Your task to perform on an android device: What's on my calendar tomorrow? Image 0: 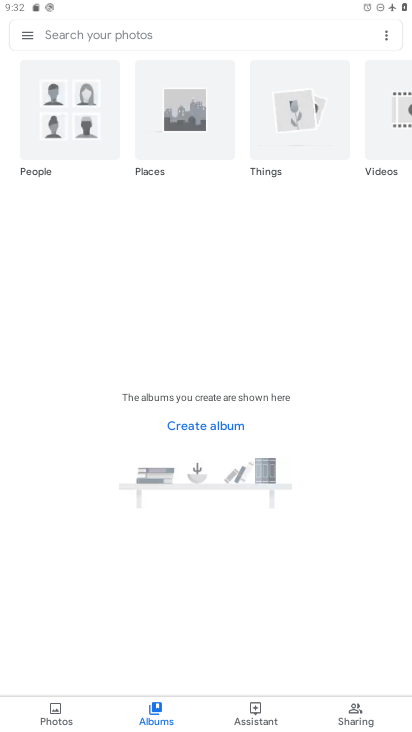
Step 0: press home button
Your task to perform on an android device: What's on my calendar tomorrow? Image 1: 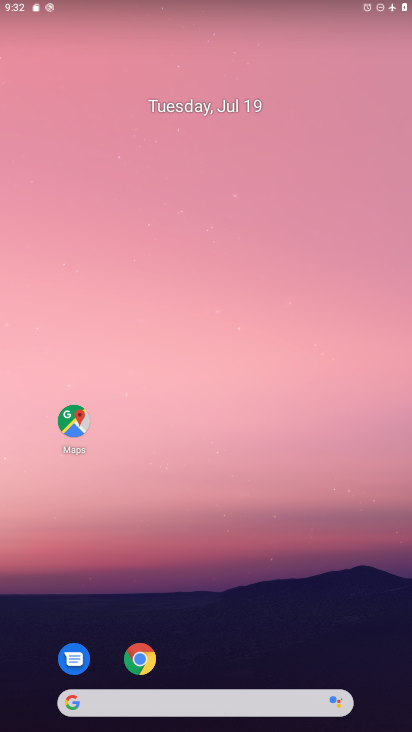
Step 1: drag from (277, 667) to (247, 178)
Your task to perform on an android device: What's on my calendar tomorrow? Image 2: 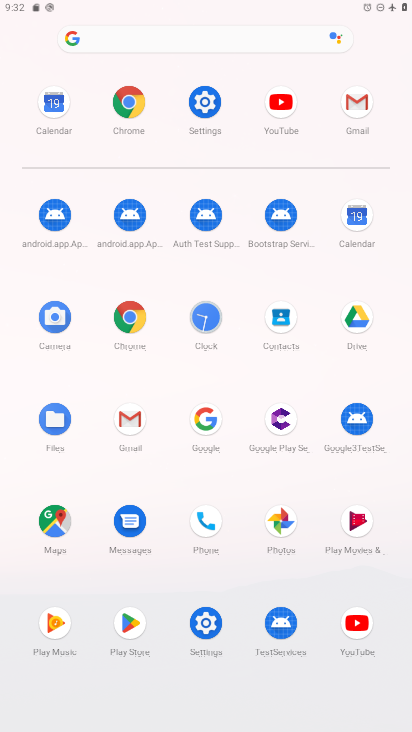
Step 2: click (46, 102)
Your task to perform on an android device: What's on my calendar tomorrow? Image 3: 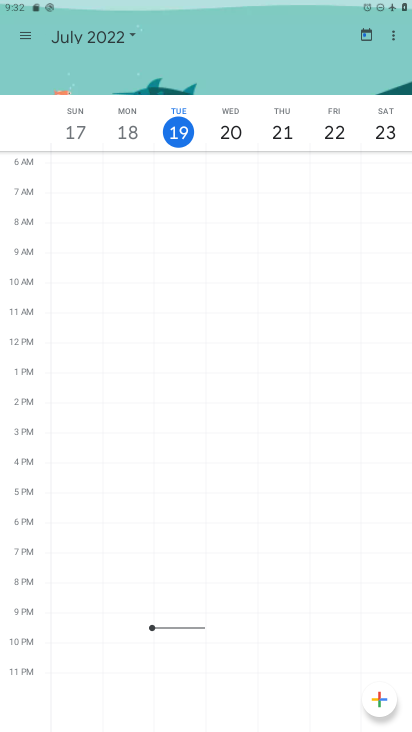
Step 3: click (281, 125)
Your task to perform on an android device: What's on my calendar tomorrow? Image 4: 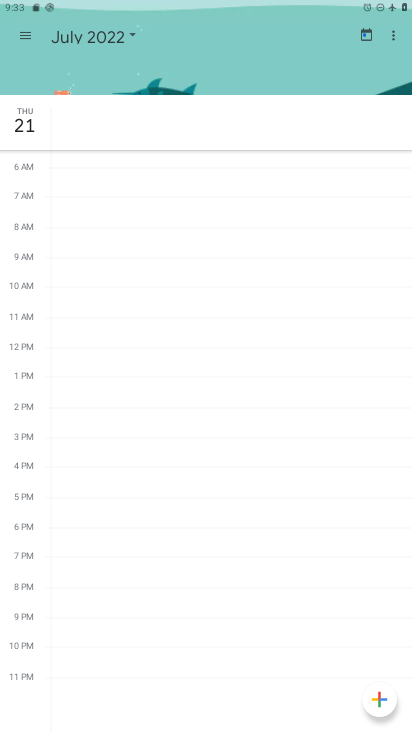
Step 4: task complete